Your task to perform on an android device: Do I have any events this weekend? Image 0: 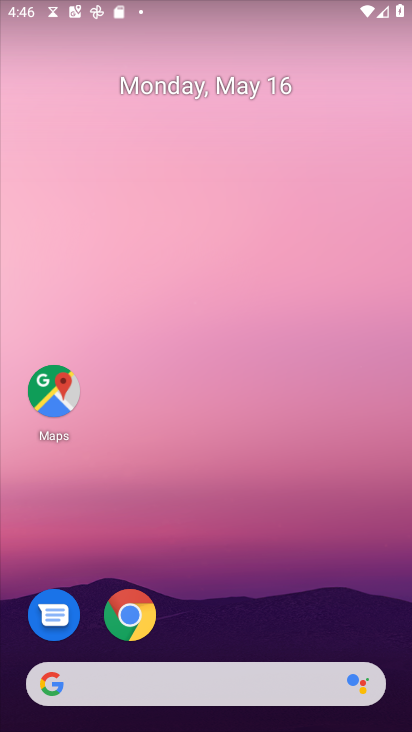
Step 0: drag from (241, 628) to (328, 44)
Your task to perform on an android device: Do I have any events this weekend? Image 1: 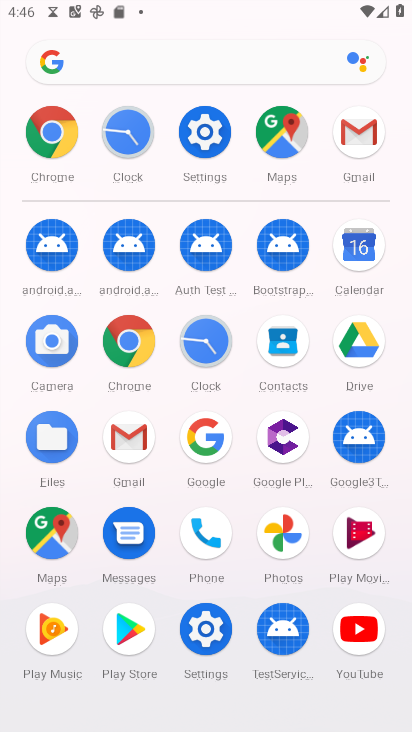
Step 1: click (347, 240)
Your task to perform on an android device: Do I have any events this weekend? Image 2: 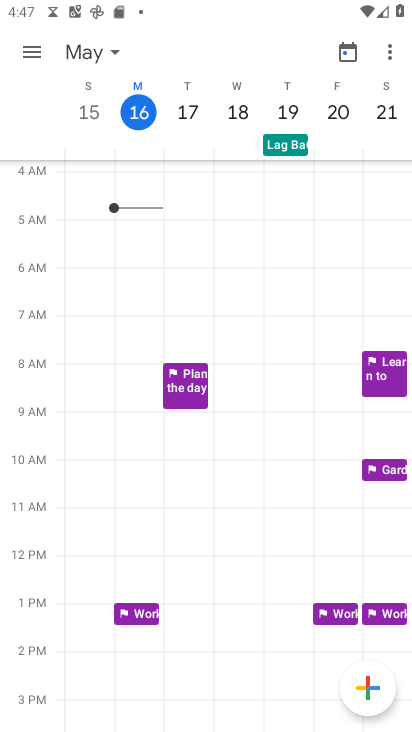
Step 2: click (85, 55)
Your task to perform on an android device: Do I have any events this weekend? Image 3: 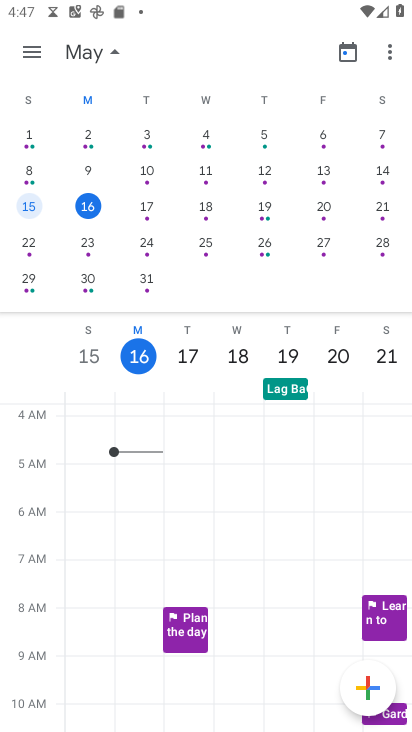
Step 3: task complete